Your task to perform on an android device: Add "lg ultragear" to the cart on walmart.com, then select checkout. Image 0: 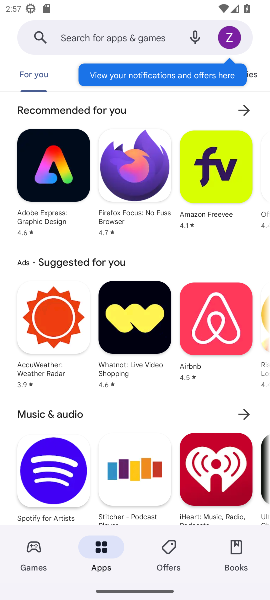
Step 0: press home button
Your task to perform on an android device: Add "lg ultragear" to the cart on walmart.com, then select checkout. Image 1: 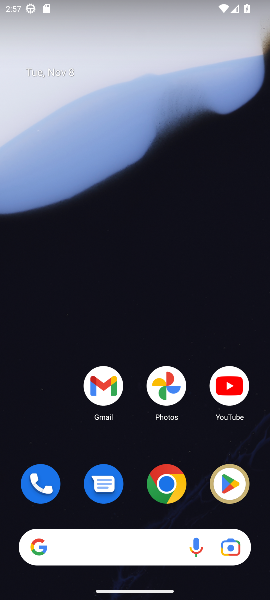
Step 1: click (179, 479)
Your task to perform on an android device: Add "lg ultragear" to the cart on walmart.com, then select checkout. Image 2: 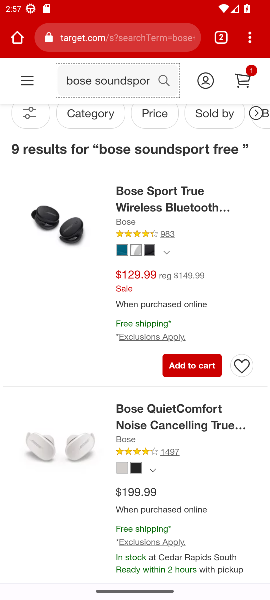
Step 2: click (121, 32)
Your task to perform on an android device: Add "lg ultragear" to the cart on walmart.com, then select checkout. Image 3: 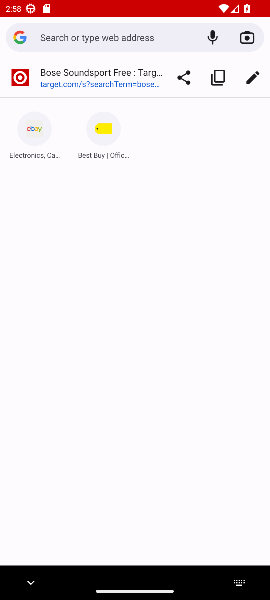
Step 3: type "walmart"
Your task to perform on an android device: Add "lg ultragear" to the cart on walmart.com, then select checkout. Image 4: 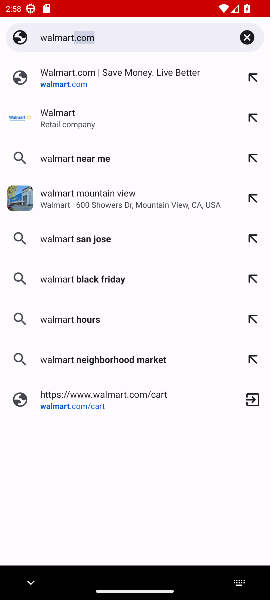
Step 4: click (43, 110)
Your task to perform on an android device: Add "lg ultragear" to the cart on walmart.com, then select checkout. Image 5: 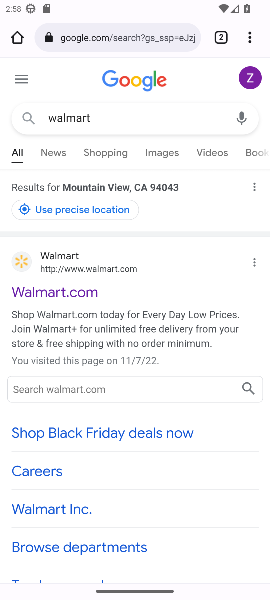
Step 5: click (41, 296)
Your task to perform on an android device: Add "lg ultragear" to the cart on walmart.com, then select checkout. Image 6: 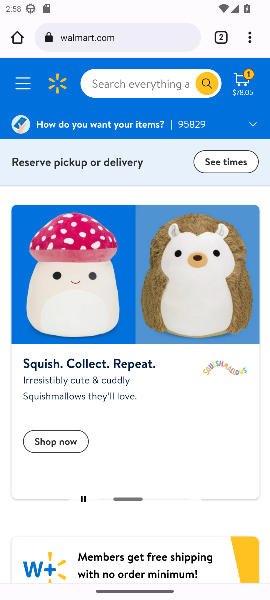
Step 6: click (140, 84)
Your task to perform on an android device: Add "lg ultragear" to the cart on walmart.com, then select checkout. Image 7: 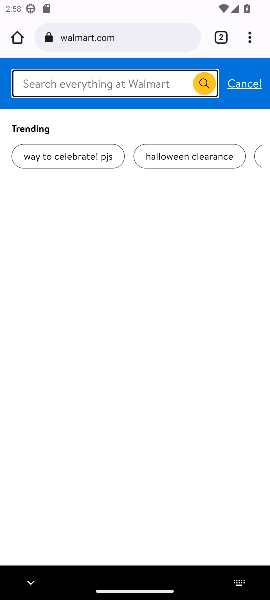
Step 7: type "lg ultragear"
Your task to perform on an android device: Add "lg ultragear" to the cart on walmart.com, then select checkout. Image 8: 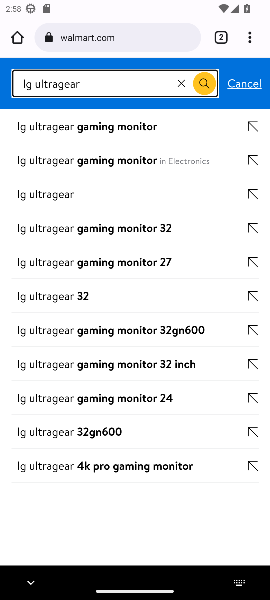
Step 8: click (204, 77)
Your task to perform on an android device: Add "lg ultragear" to the cart on walmart.com, then select checkout. Image 9: 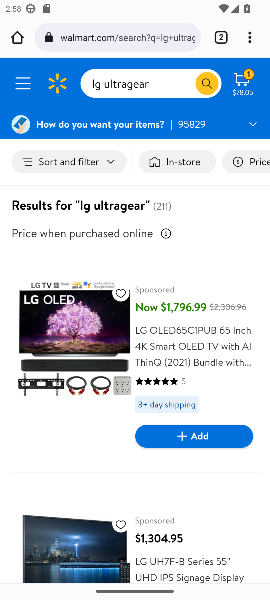
Step 9: drag from (114, 503) to (112, 263)
Your task to perform on an android device: Add "lg ultragear" to the cart on walmart.com, then select checkout. Image 10: 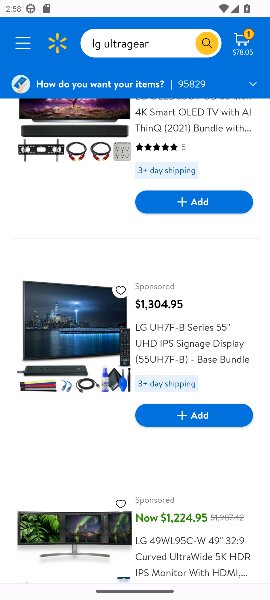
Step 10: drag from (153, 501) to (133, 237)
Your task to perform on an android device: Add "lg ultragear" to the cart on walmart.com, then select checkout. Image 11: 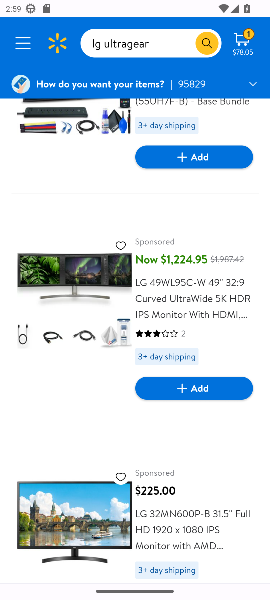
Step 11: drag from (124, 466) to (100, 231)
Your task to perform on an android device: Add "lg ultragear" to the cart on walmart.com, then select checkout. Image 12: 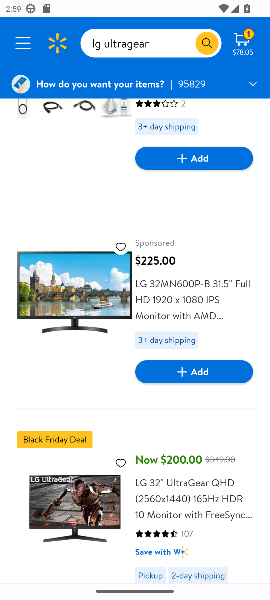
Step 12: drag from (120, 431) to (129, 205)
Your task to perform on an android device: Add "lg ultragear" to the cart on walmart.com, then select checkout. Image 13: 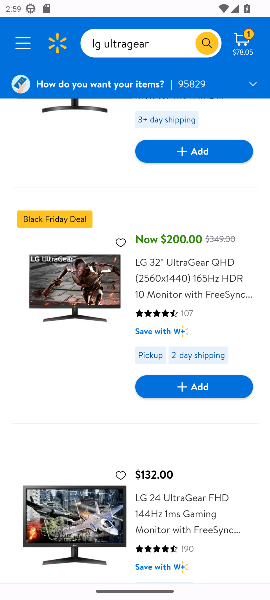
Step 13: click (171, 379)
Your task to perform on an android device: Add "lg ultragear" to the cart on walmart.com, then select checkout. Image 14: 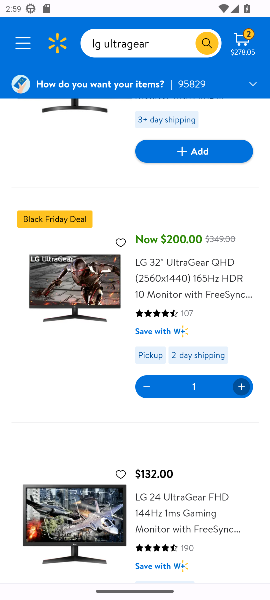
Step 14: click (242, 40)
Your task to perform on an android device: Add "lg ultragear" to the cart on walmart.com, then select checkout. Image 15: 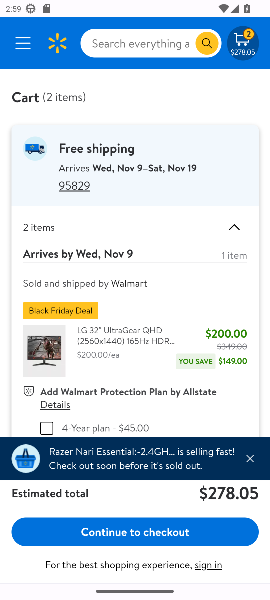
Step 15: click (119, 531)
Your task to perform on an android device: Add "lg ultragear" to the cart on walmart.com, then select checkout. Image 16: 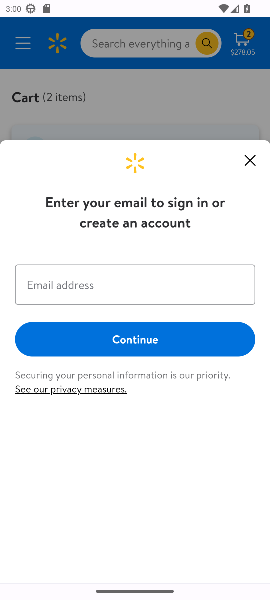
Step 16: click (244, 171)
Your task to perform on an android device: Add "lg ultragear" to the cart on walmart.com, then select checkout. Image 17: 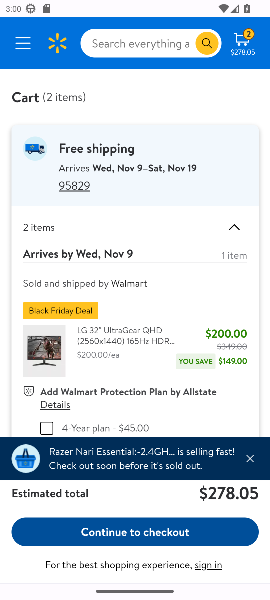
Step 17: click (176, 529)
Your task to perform on an android device: Add "lg ultragear" to the cart on walmart.com, then select checkout. Image 18: 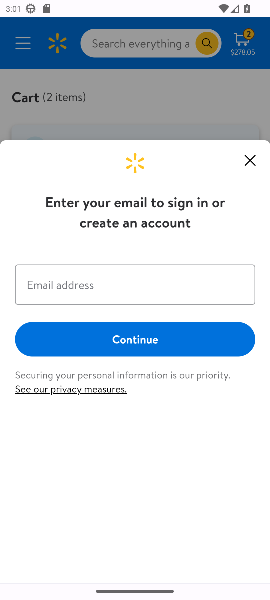
Step 18: click (252, 166)
Your task to perform on an android device: Add "lg ultragear" to the cart on walmart.com, then select checkout. Image 19: 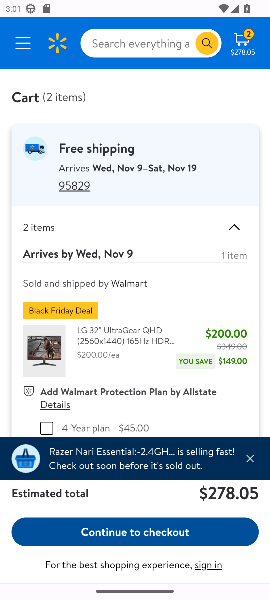
Step 19: task complete